Your task to perform on an android device: Open accessibility settings Image 0: 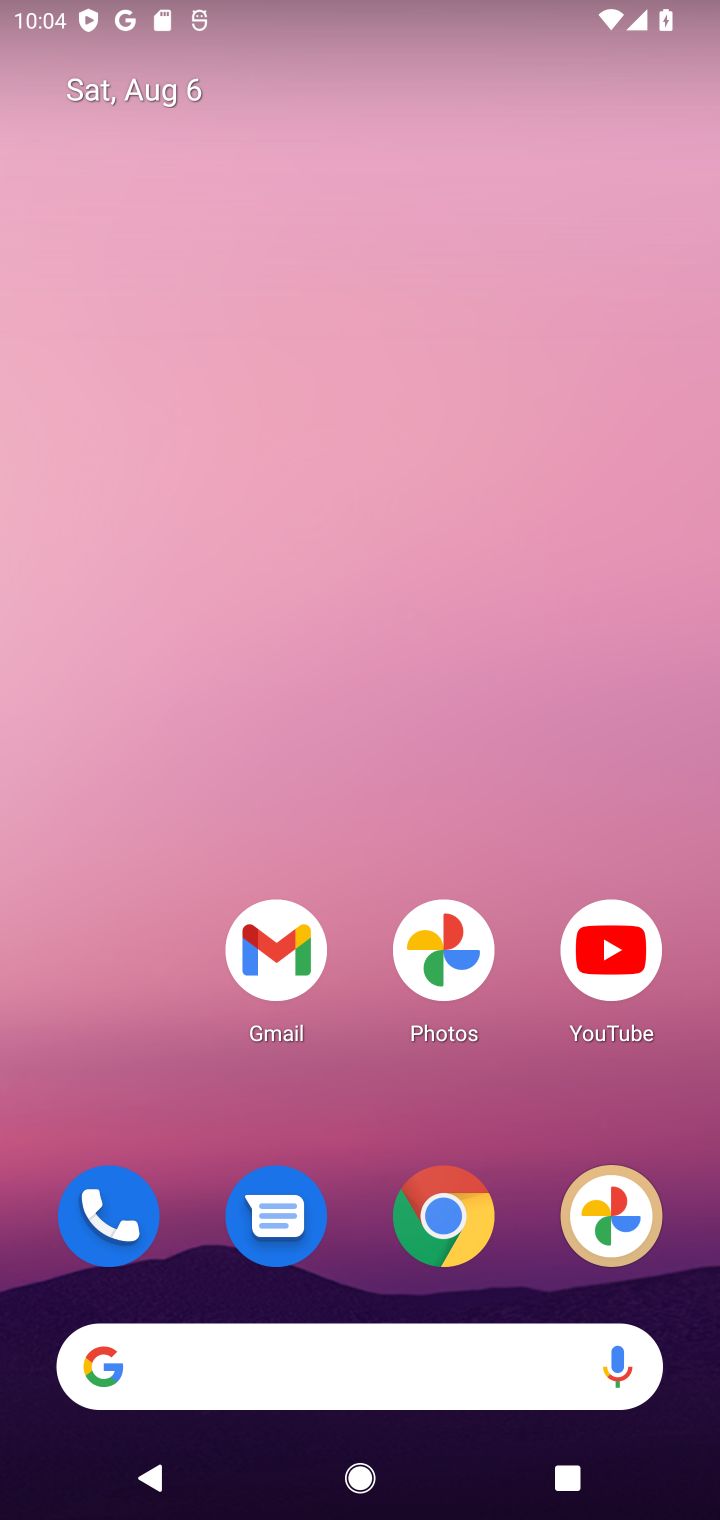
Step 0: drag from (280, 1018) to (330, 292)
Your task to perform on an android device: Open accessibility settings Image 1: 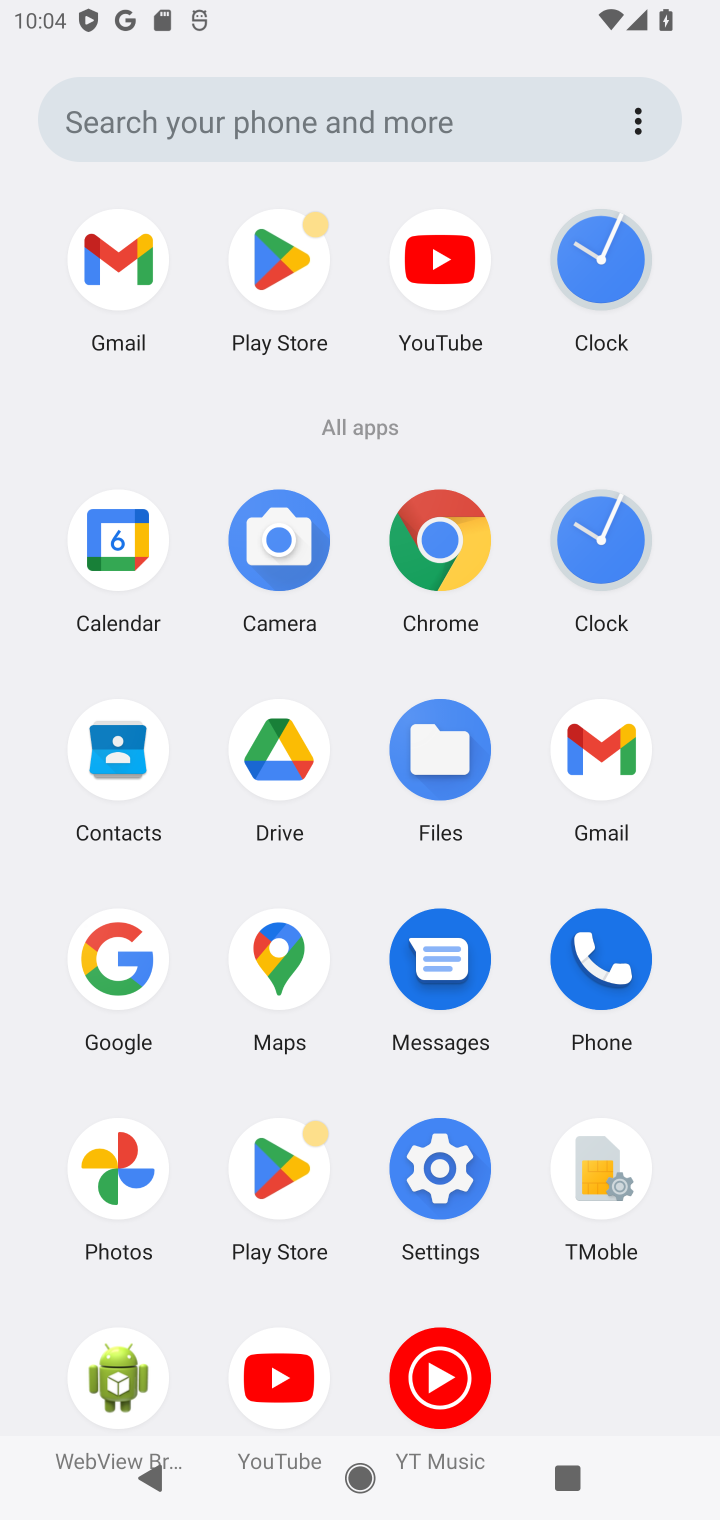
Step 1: click (432, 1151)
Your task to perform on an android device: Open accessibility settings Image 2: 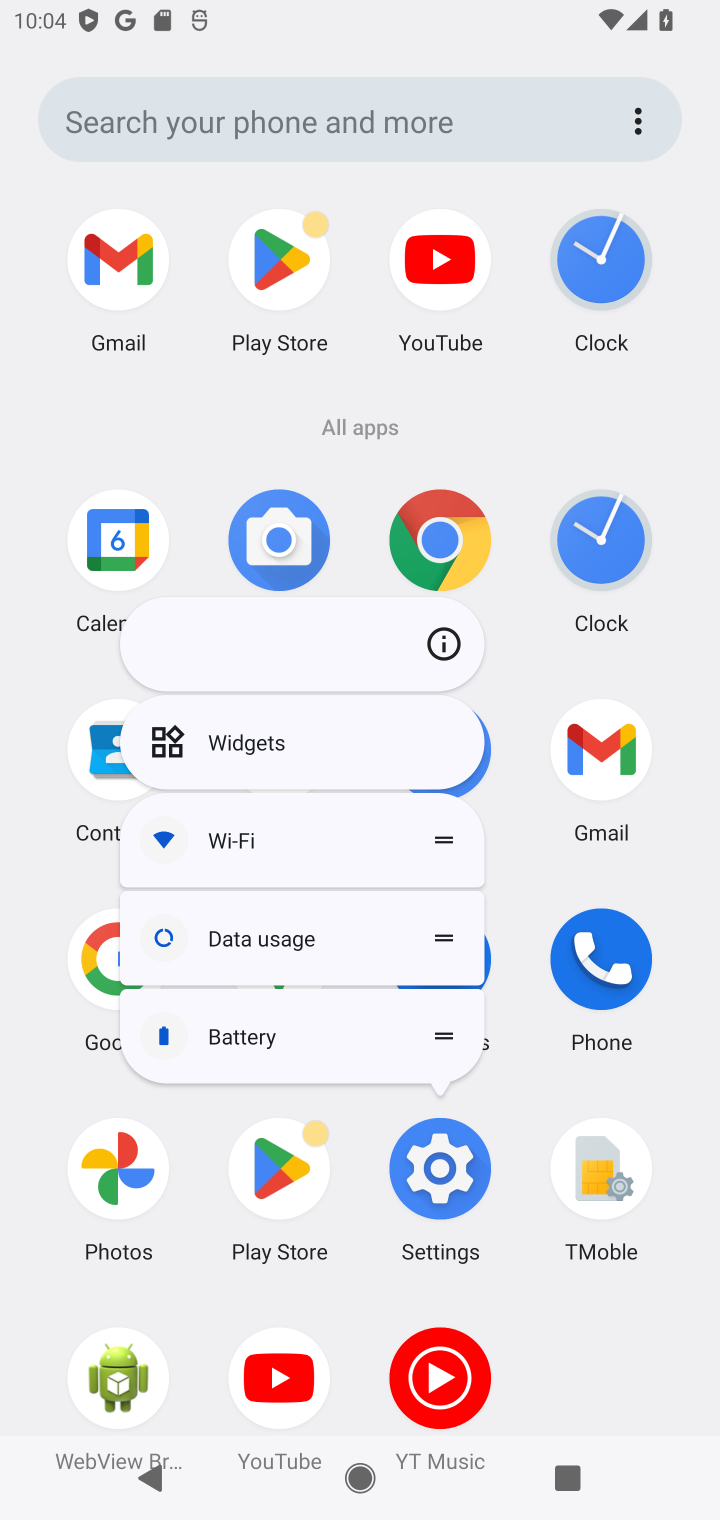
Step 2: click (432, 1170)
Your task to perform on an android device: Open accessibility settings Image 3: 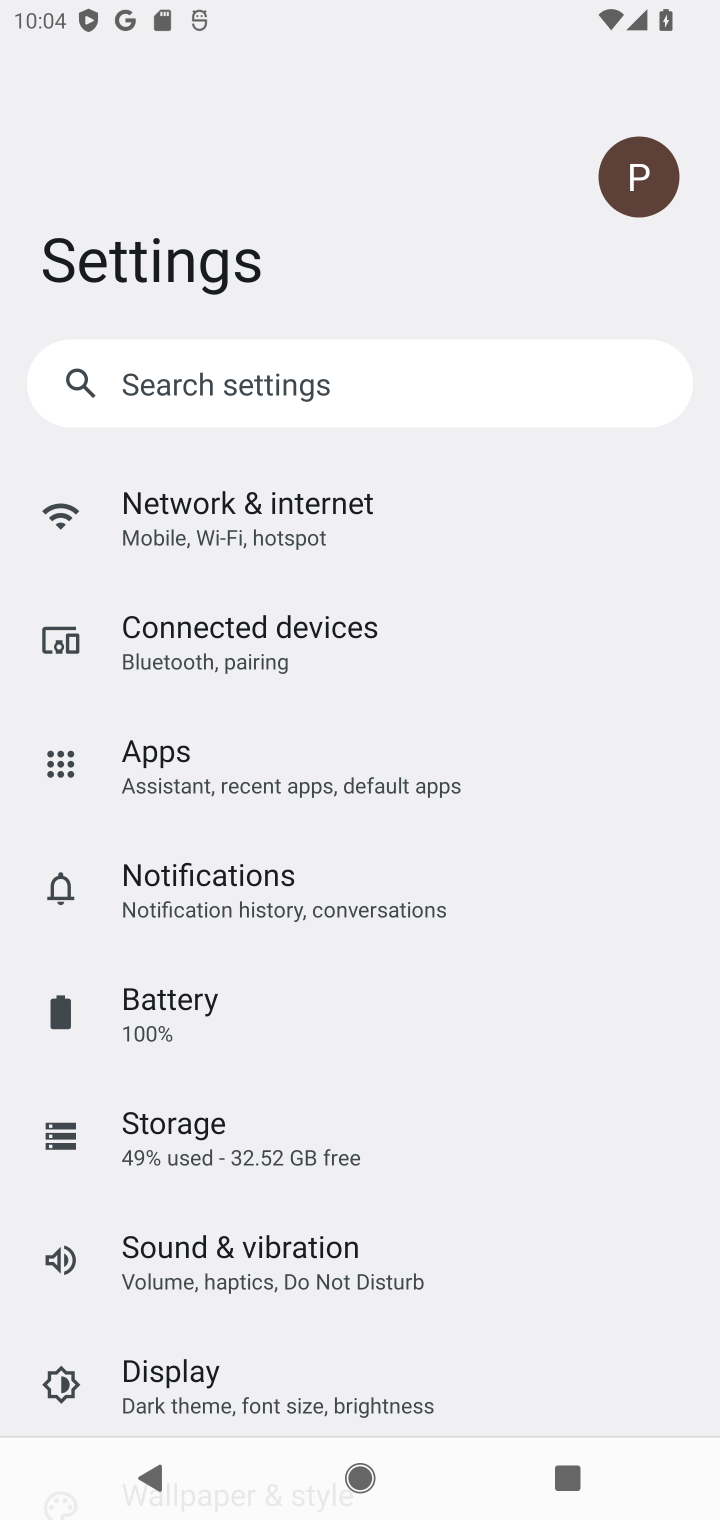
Step 3: drag from (213, 1393) to (213, 800)
Your task to perform on an android device: Open accessibility settings Image 4: 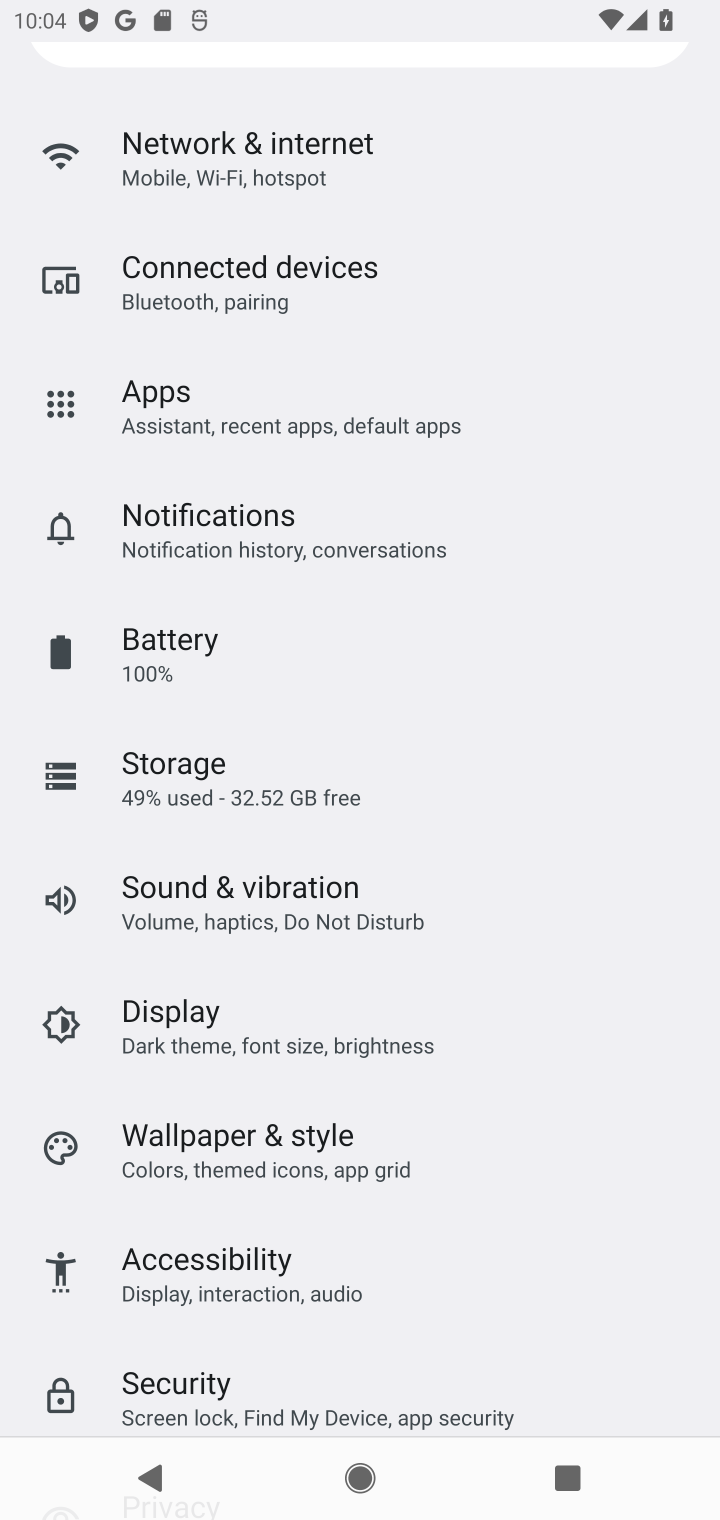
Step 4: click (205, 1299)
Your task to perform on an android device: Open accessibility settings Image 5: 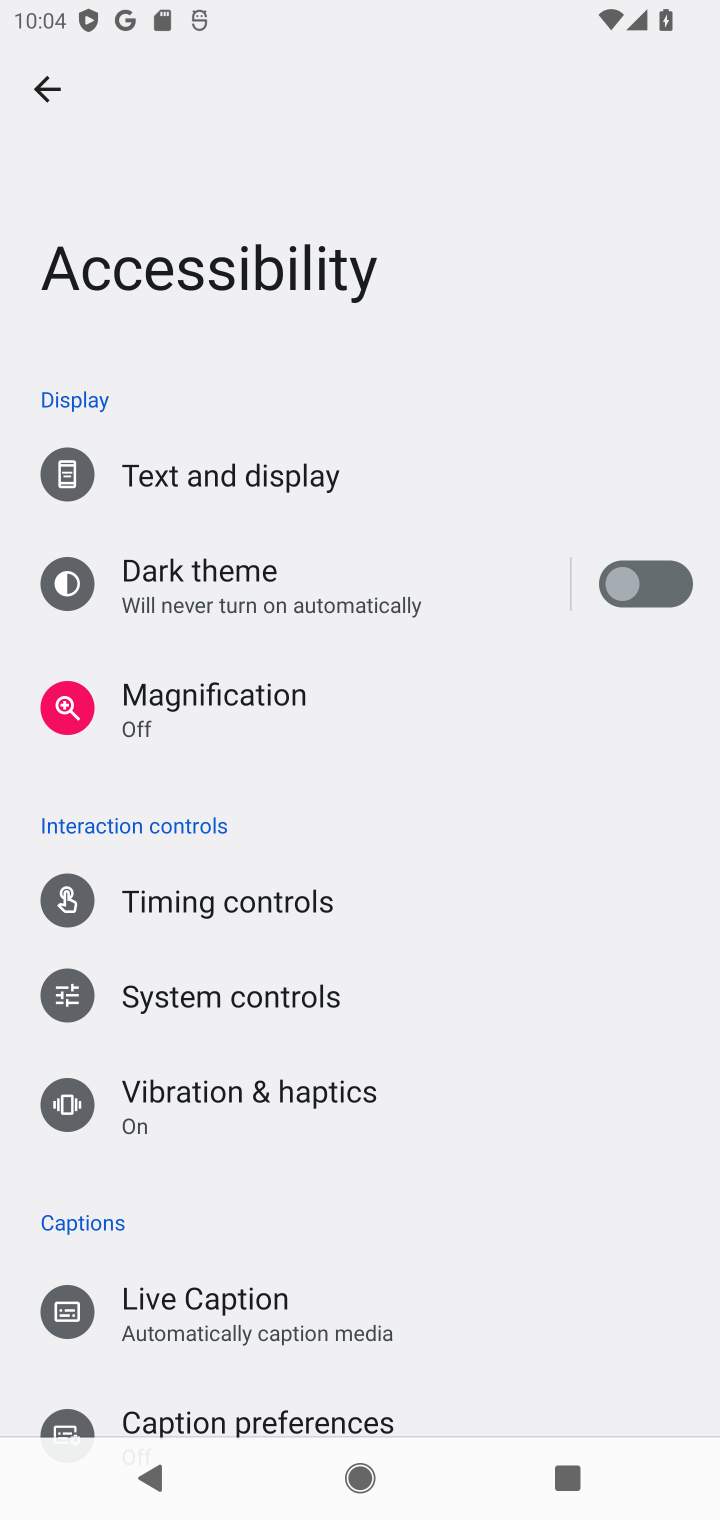
Step 5: task complete